Your task to perform on an android device: see creations saved in the google photos Image 0: 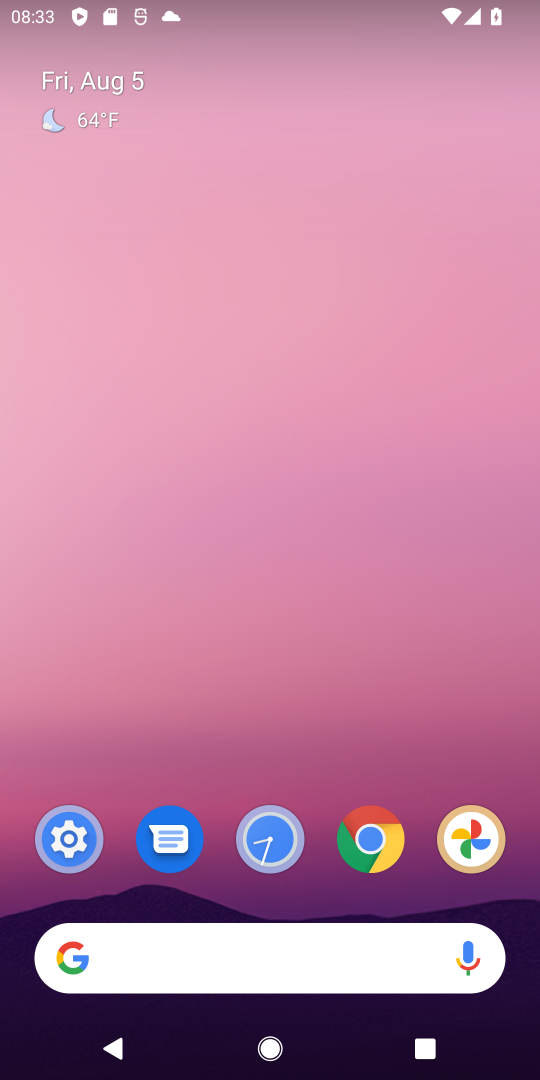
Step 0: drag from (325, 726) to (322, 128)
Your task to perform on an android device: see creations saved in the google photos Image 1: 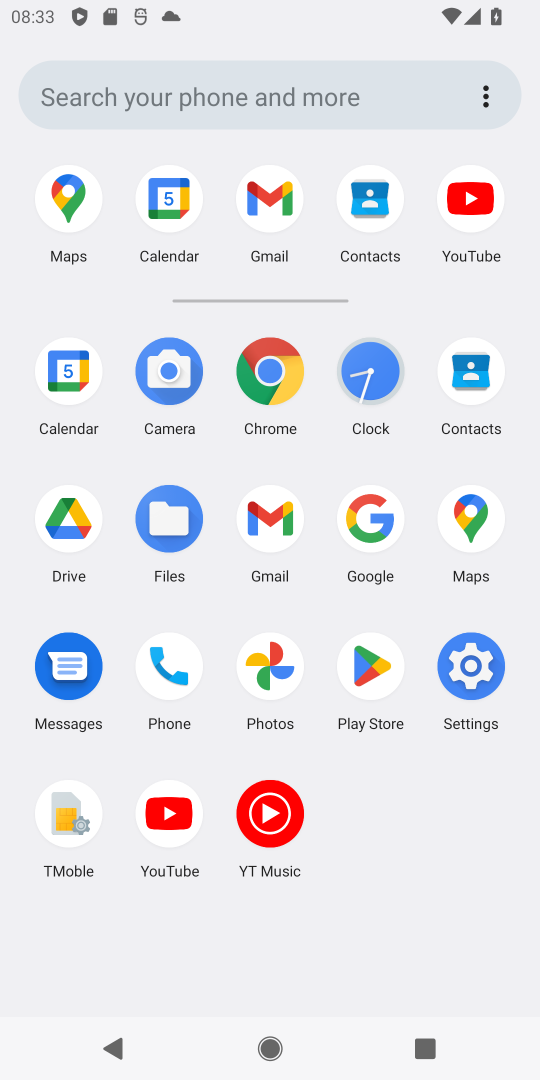
Step 1: click (275, 663)
Your task to perform on an android device: see creations saved in the google photos Image 2: 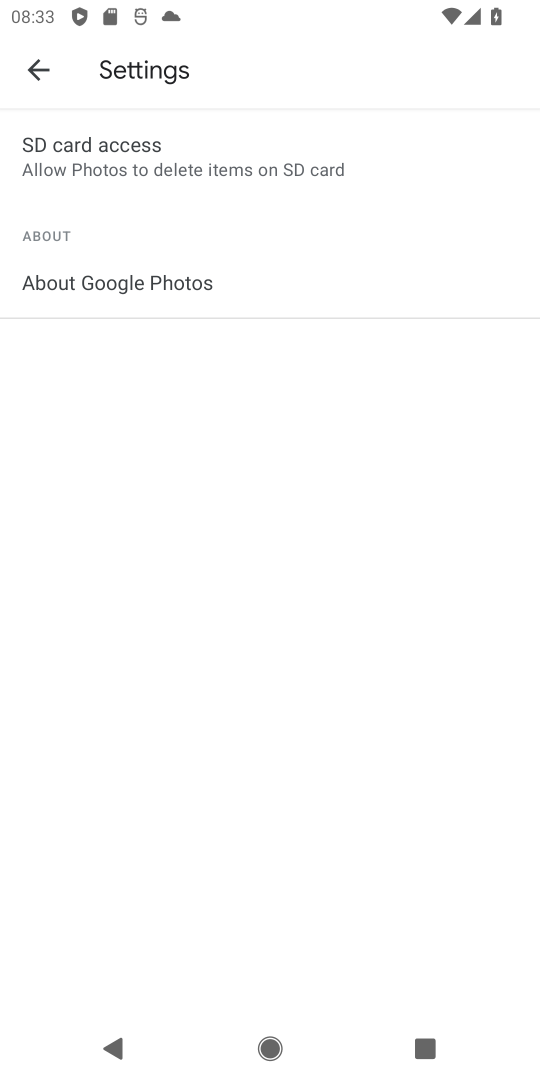
Step 2: click (36, 66)
Your task to perform on an android device: see creations saved in the google photos Image 3: 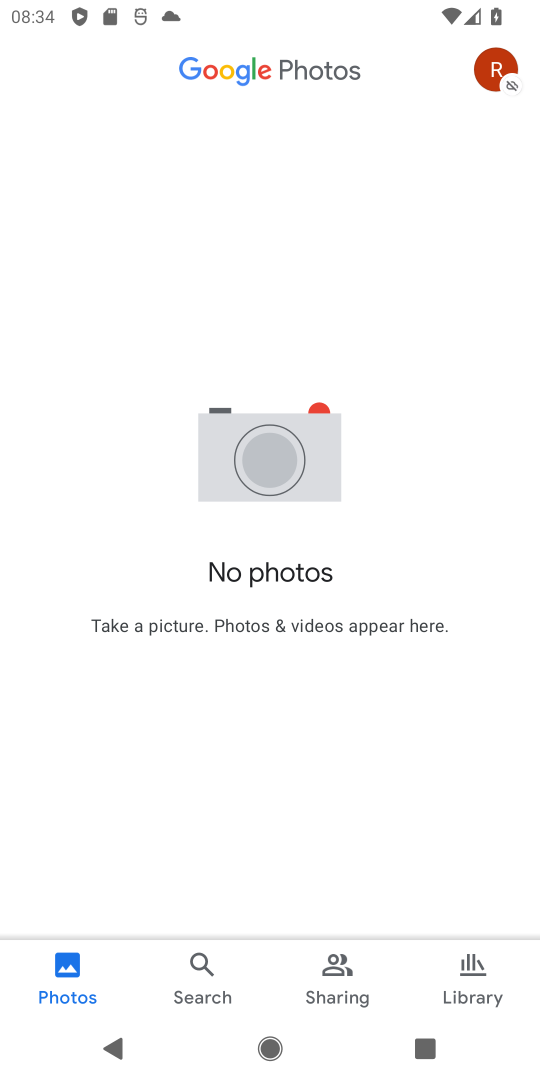
Step 3: click (194, 963)
Your task to perform on an android device: see creations saved in the google photos Image 4: 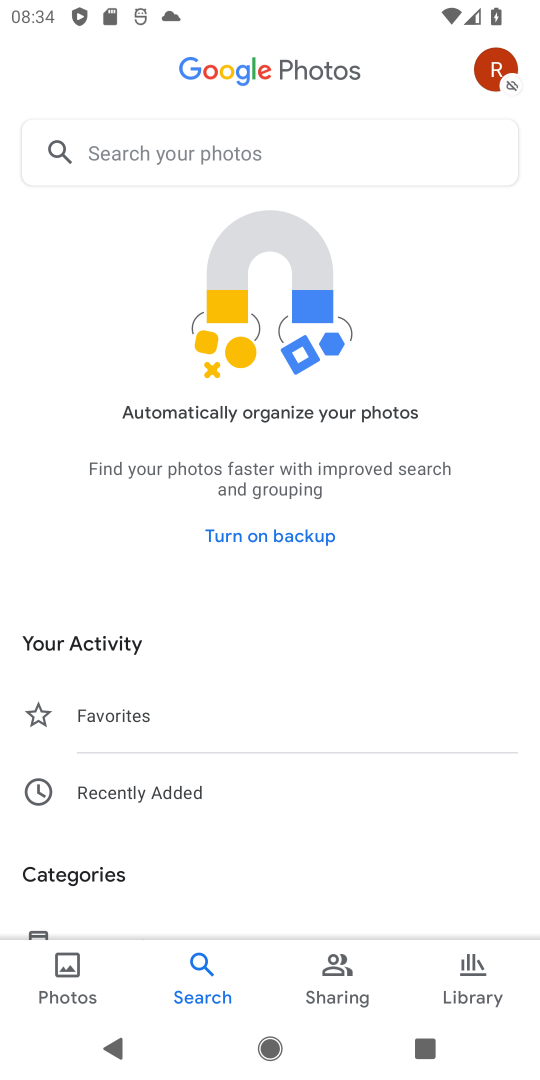
Step 4: drag from (185, 862) to (214, 450)
Your task to perform on an android device: see creations saved in the google photos Image 5: 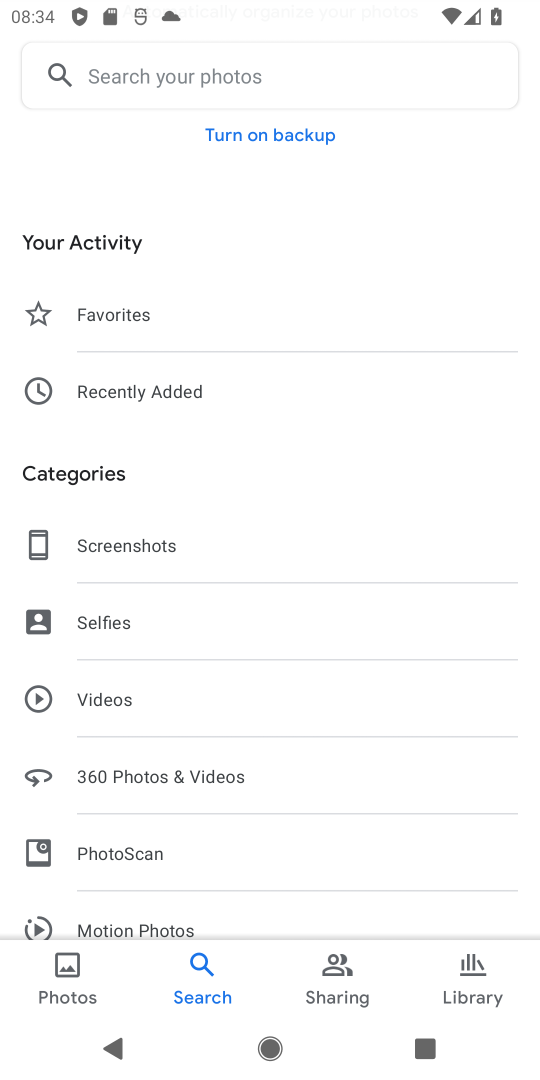
Step 5: drag from (129, 861) to (111, 378)
Your task to perform on an android device: see creations saved in the google photos Image 6: 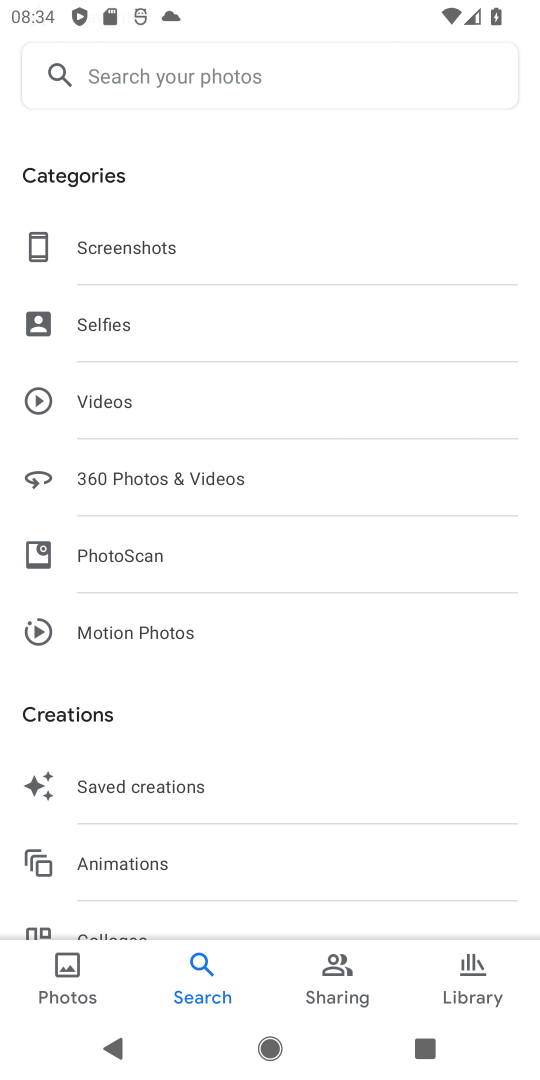
Step 6: click (160, 787)
Your task to perform on an android device: see creations saved in the google photos Image 7: 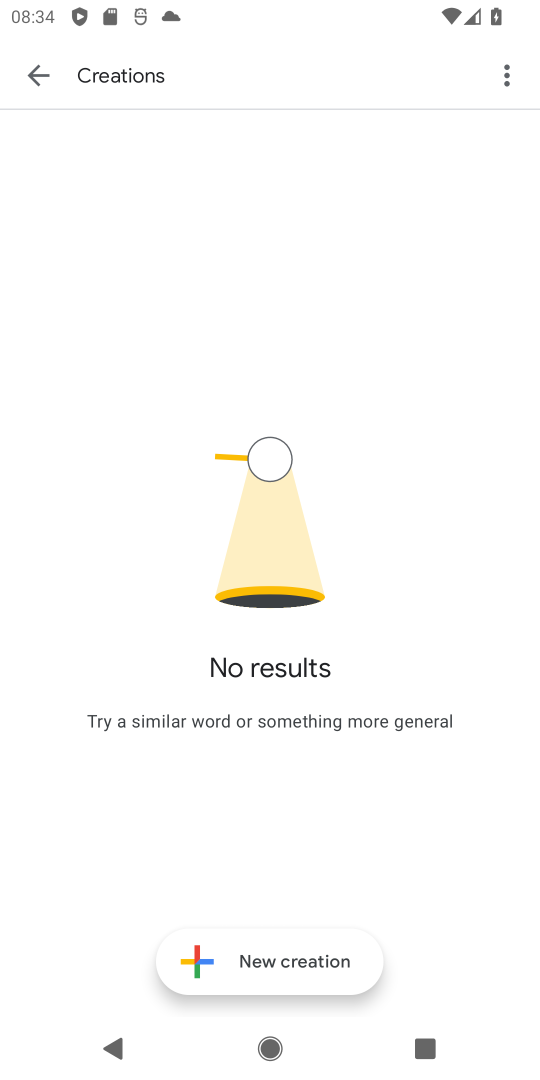
Step 7: task complete